Your task to perform on an android device: refresh tabs in the chrome app Image 0: 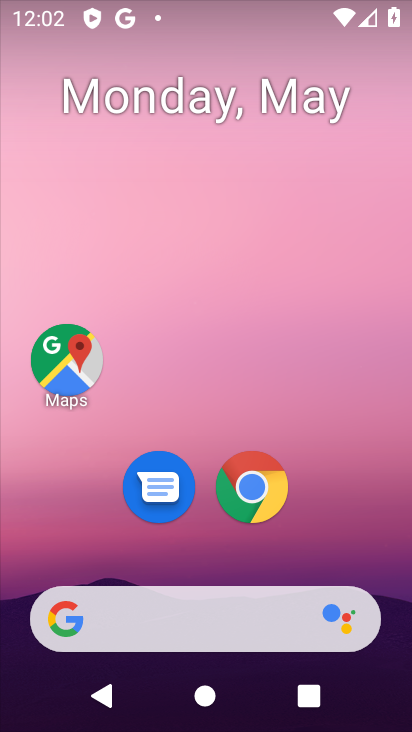
Step 0: click (254, 487)
Your task to perform on an android device: refresh tabs in the chrome app Image 1: 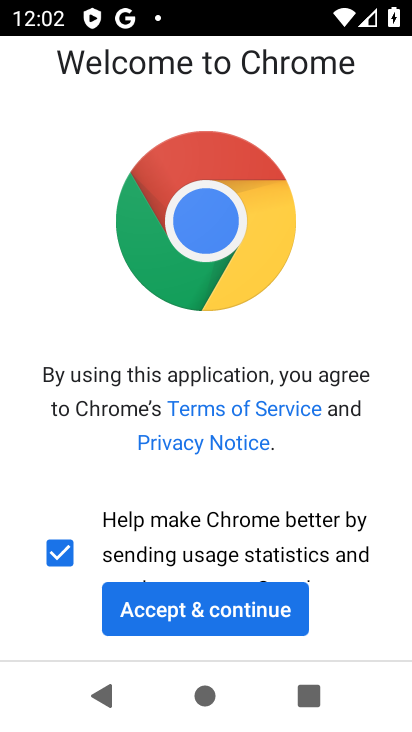
Step 1: click (156, 607)
Your task to perform on an android device: refresh tabs in the chrome app Image 2: 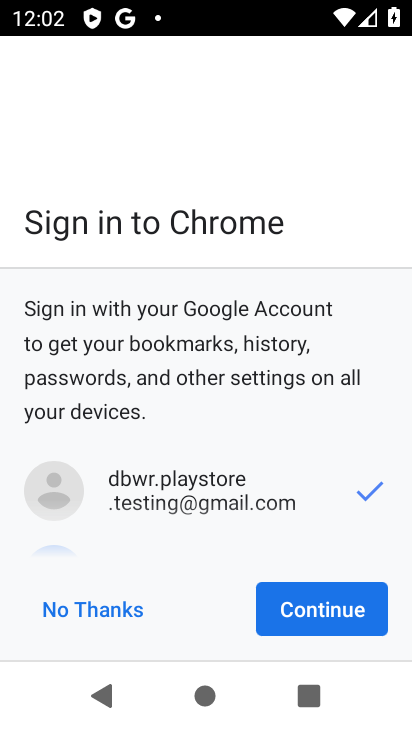
Step 2: click (291, 606)
Your task to perform on an android device: refresh tabs in the chrome app Image 3: 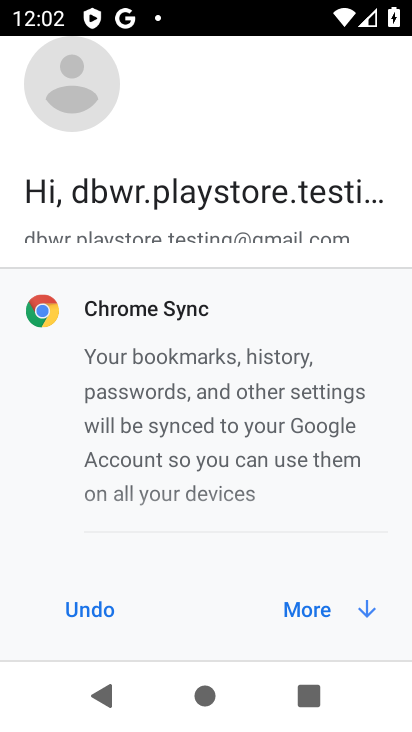
Step 3: click (310, 609)
Your task to perform on an android device: refresh tabs in the chrome app Image 4: 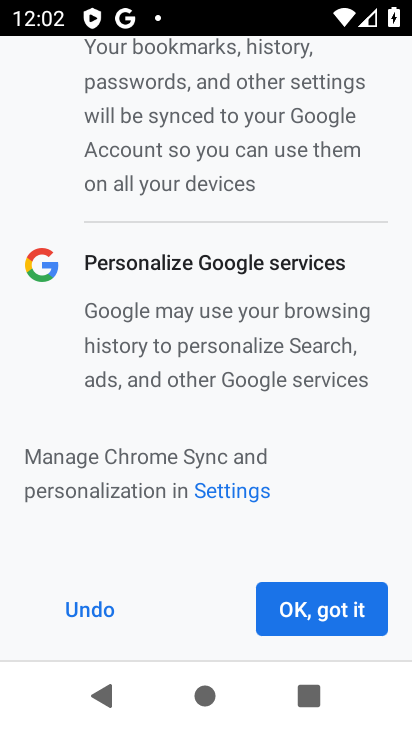
Step 4: click (310, 609)
Your task to perform on an android device: refresh tabs in the chrome app Image 5: 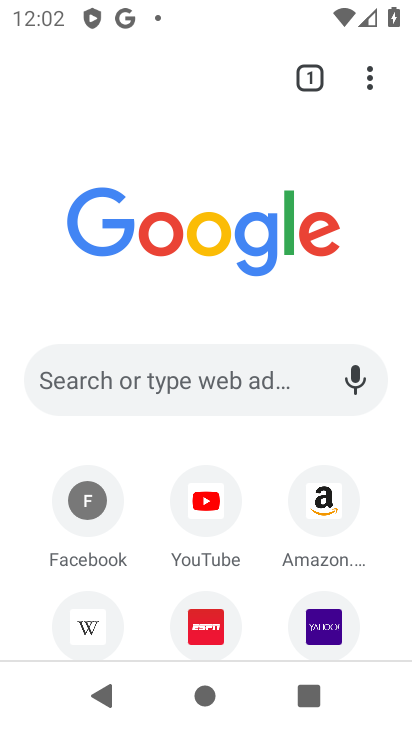
Step 5: click (372, 74)
Your task to perform on an android device: refresh tabs in the chrome app Image 6: 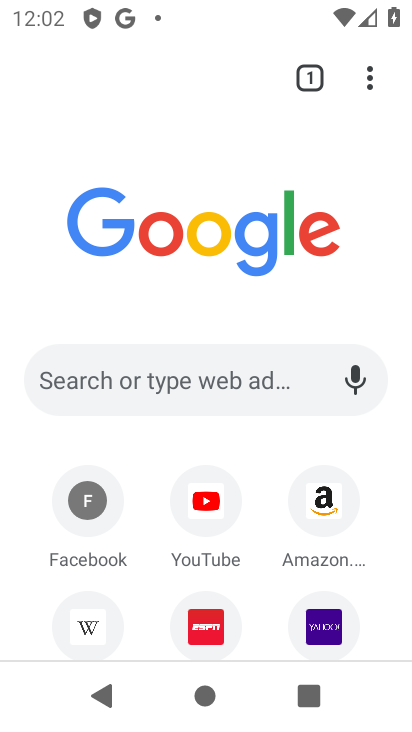
Step 6: click (372, 74)
Your task to perform on an android device: refresh tabs in the chrome app Image 7: 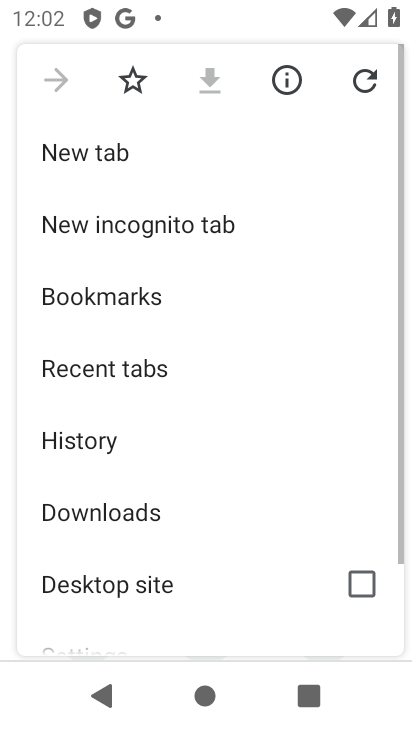
Step 7: click (372, 74)
Your task to perform on an android device: refresh tabs in the chrome app Image 8: 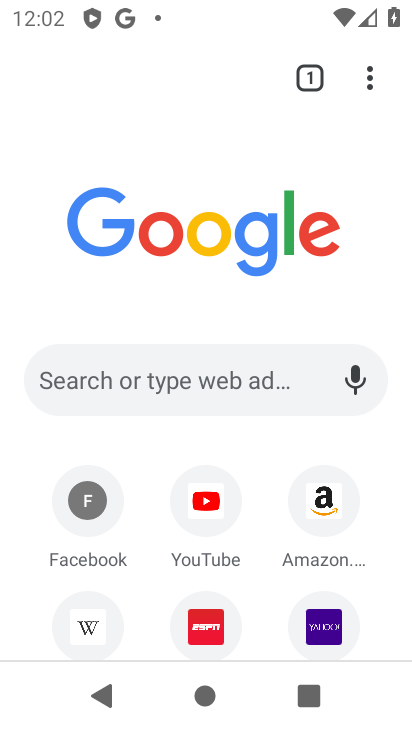
Step 8: task complete